Your task to perform on an android device: Open notification settings Image 0: 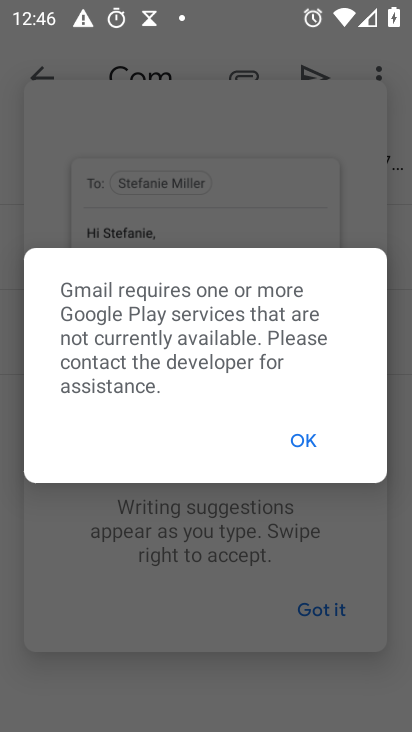
Step 0: press home button
Your task to perform on an android device: Open notification settings Image 1: 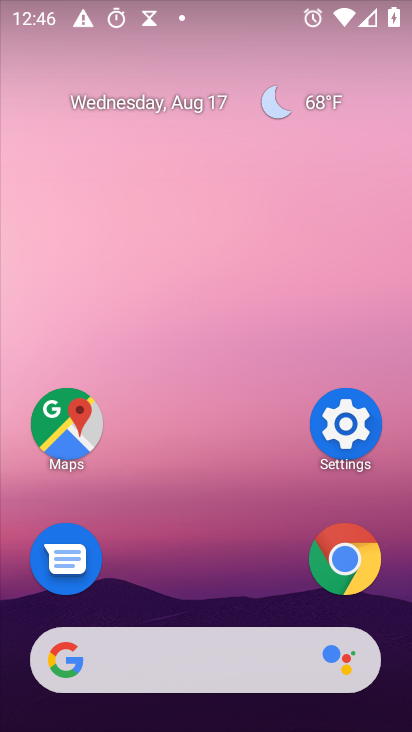
Step 1: click (342, 425)
Your task to perform on an android device: Open notification settings Image 2: 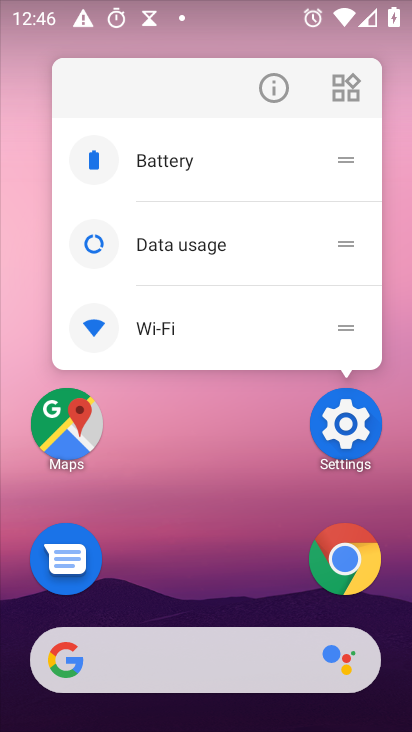
Step 2: click (357, 430)
Your task to perform on an android device: Open notification settings Image 3: 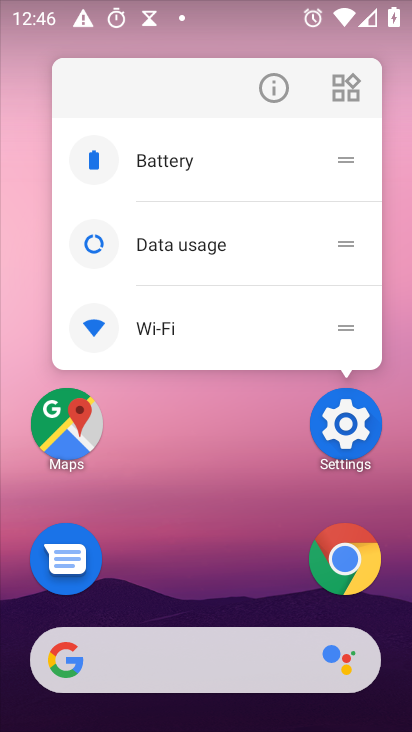
Step 3: click (350, 430)
Your task to perform on an android device: Open notification settings Image 4: 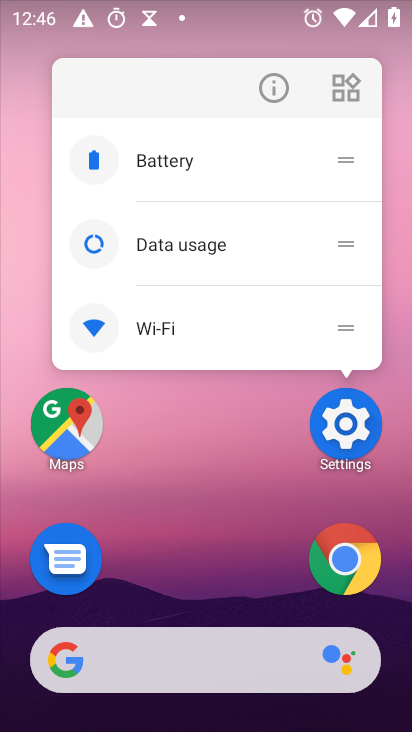
Step 4: click (346, 420)
Your task to perform on an android device: Open notification settings Image 5: 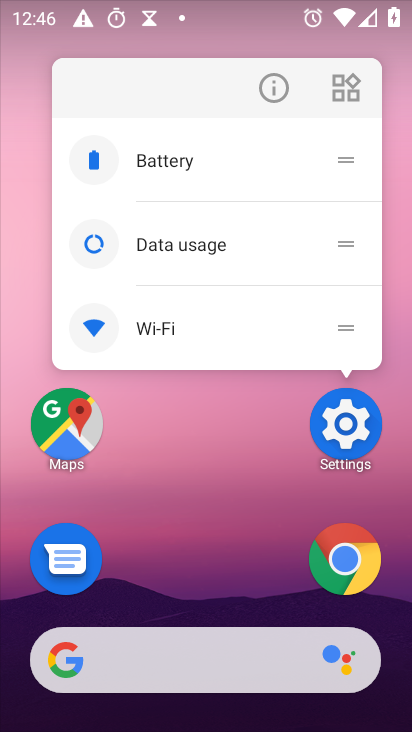
Step 5: click (346, 422)
Your task to perform on an android device: Open notification settings Image 6: 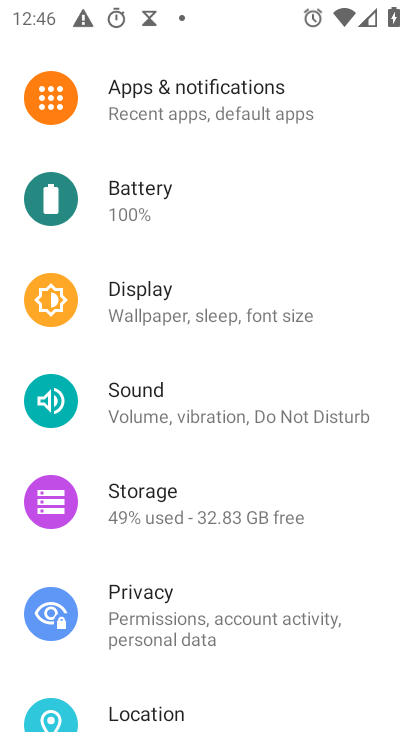
Step 6: click (199, 99)
Your task to perform on an android device: Open notification settings Image 7: 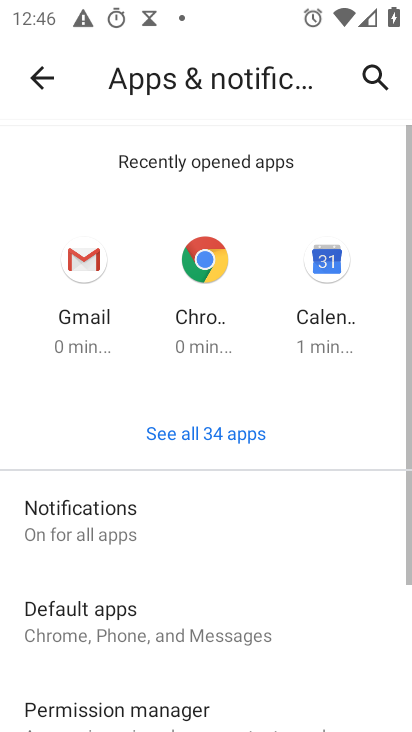
Step 7: click (85, 527)
Your task to perform on an android device: Open notification settings Image 8: 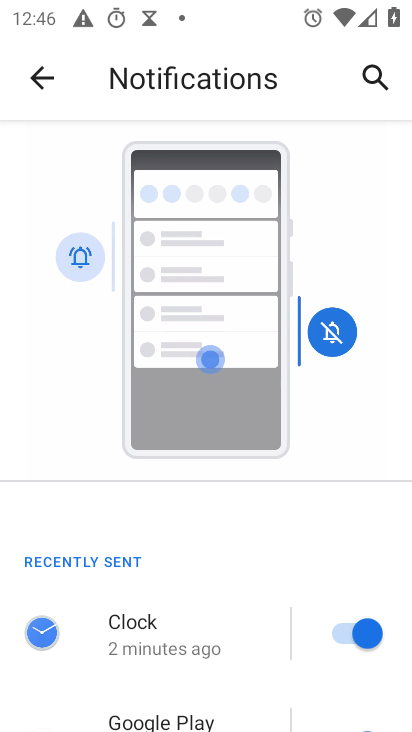
Step 8: task complete